Your task to perform on an android device: Search for seafood restaurants on Google Maps Image 0: 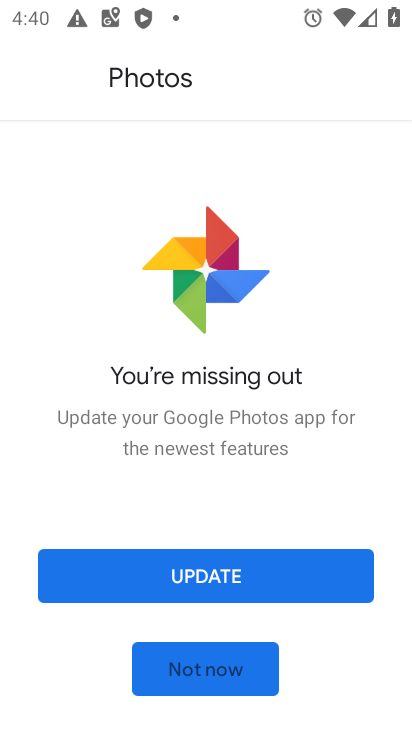
Step 0: press home button
Your task to perform on an android device: Search for seafood restaurants on Google Maps Image 1: 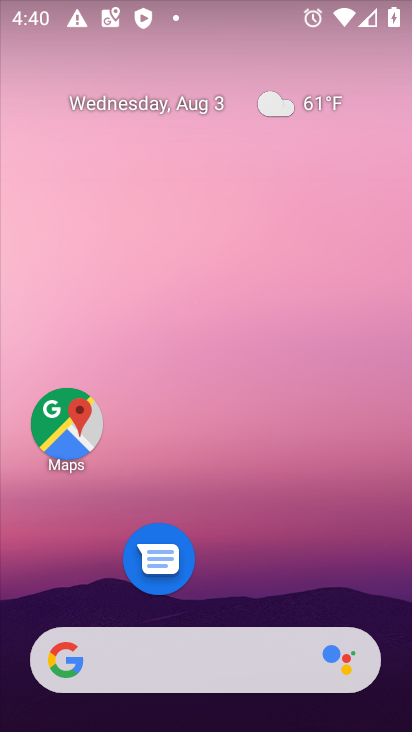
Step 1: drag from (180, 630) to (124, 88)
Your task to perform on an android device: Search for seafood restaurants on Google Maps Image 2: 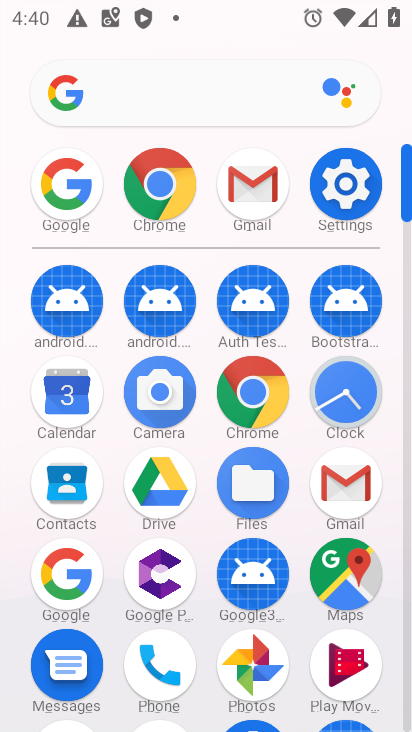
Step 2: click (347, 579)
Your task to perform on an android device: Search for seafood restaurants on Google Maps Image 3: 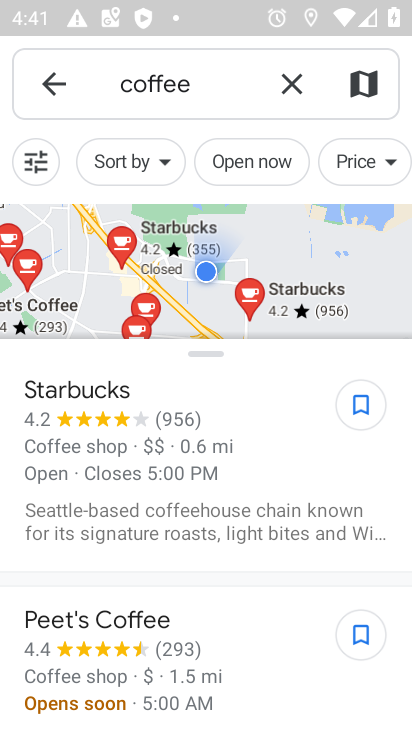
Step 3: click (287, 91)
Your task to perform on an android device: Search for seafood restaurants on Google Maps Image 4: 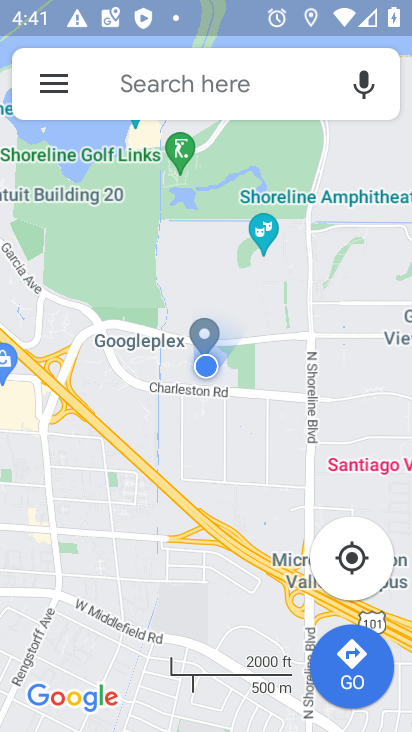
Step 4: click (223, 82)
Your task to perform on an android device: Search for seafood restaurants on Google Maps Image 5: 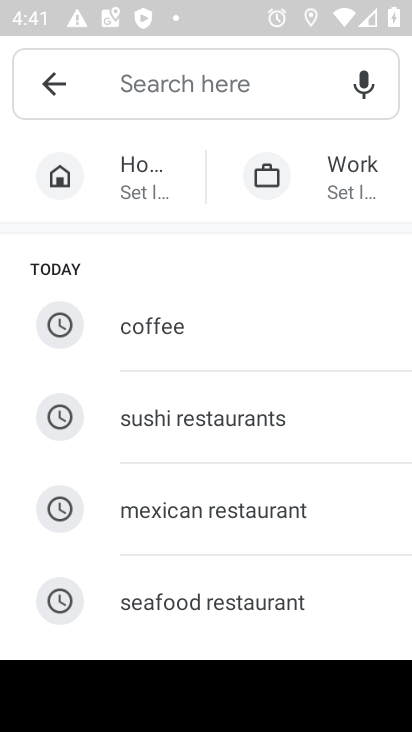
Step 5: click (171, 603)
Your task to perform on an android device: Search for seafood restaurants on Google Maps Image 6: 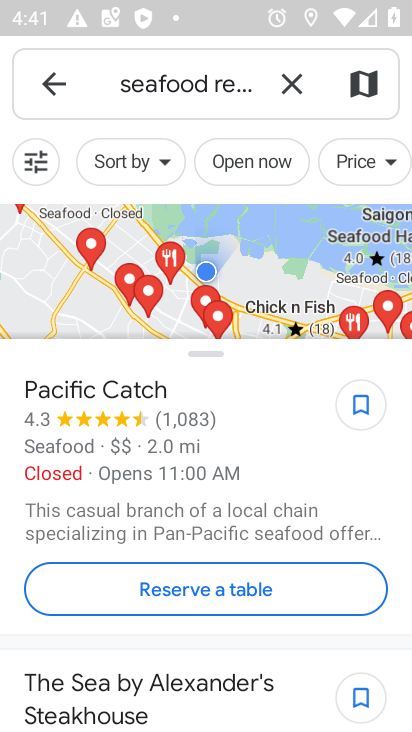
Step 6: task complete